Your task to perform on an android device: turn notification dots off Image 0: 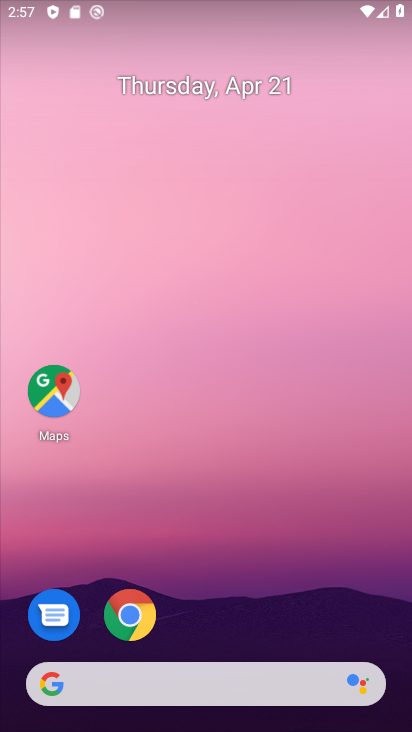
Step 0: drag from (365, 592) to (320, 163)
Your task to perform on an android device: turn notification dots off Image 1: 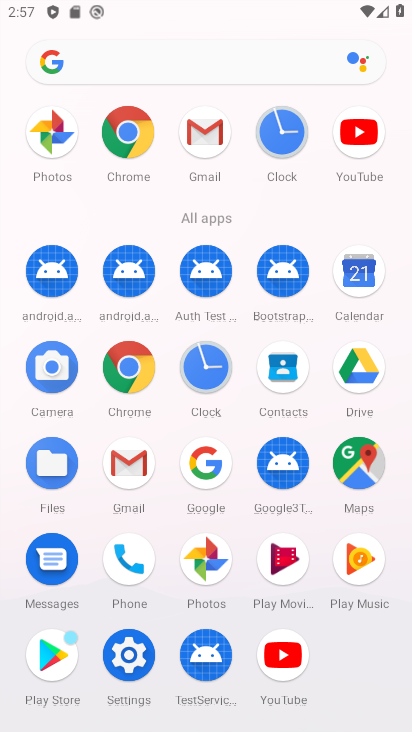
Step 1: click (121, 655)
Your task to perform on an android device: turn notification dots off Image 2: 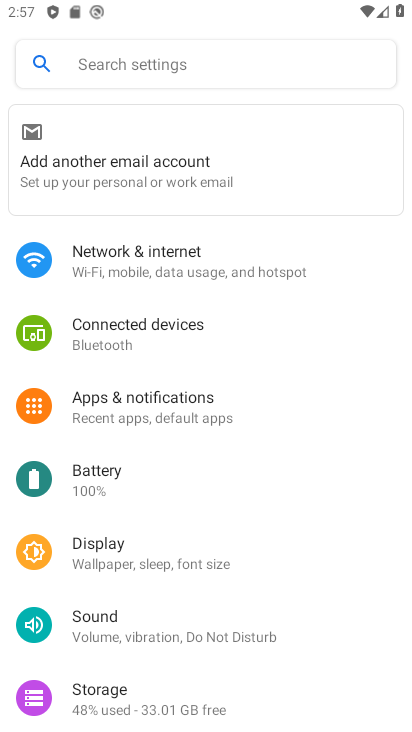
Step 2: click (175, 396)
Your task to perform on an android device: turn notification dots off Image 3: 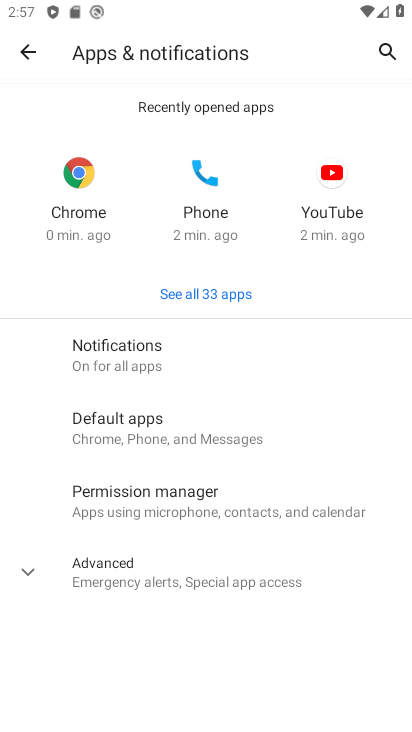
Step 3: click (106, 355)
Your task to perform on an android device: turn notification dots off Image 4: 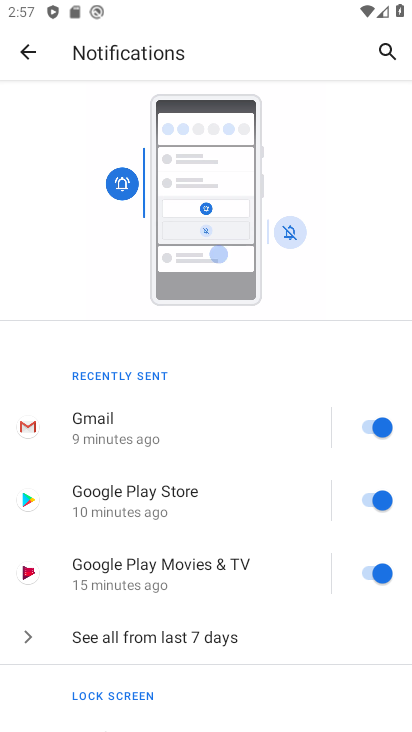
Step 4: drag from (227, 690) to (349, 330)
Your task to perform on an android device: turn notification dots off Image 5: 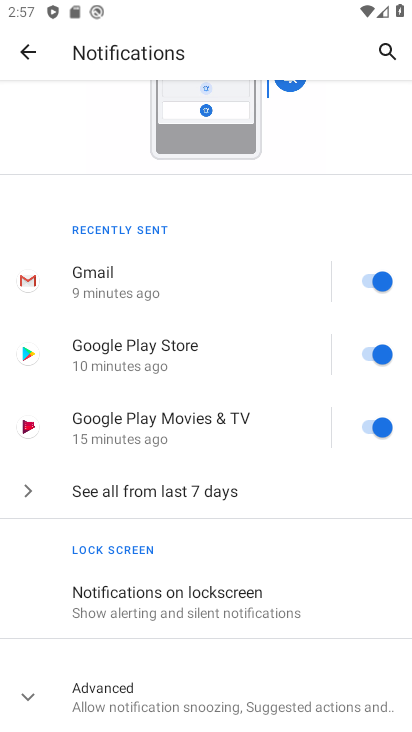
Step 5: click (207, 600)
Your task to perform on an android device: turn notification dots off Image 6: 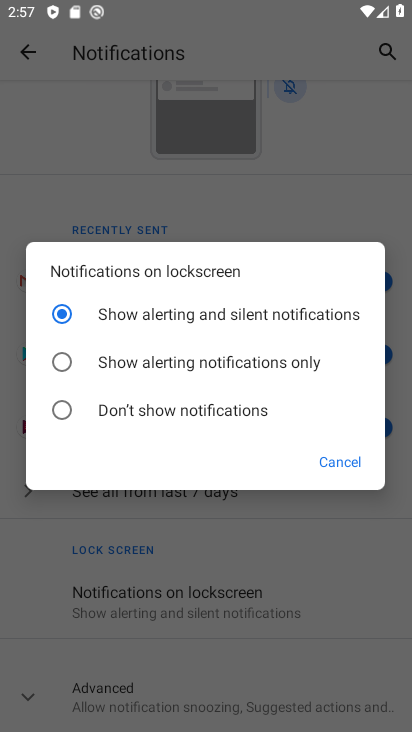
Step 6: click (328, 571)
Your task to perform on an android device: turn notification dots off Image 7: 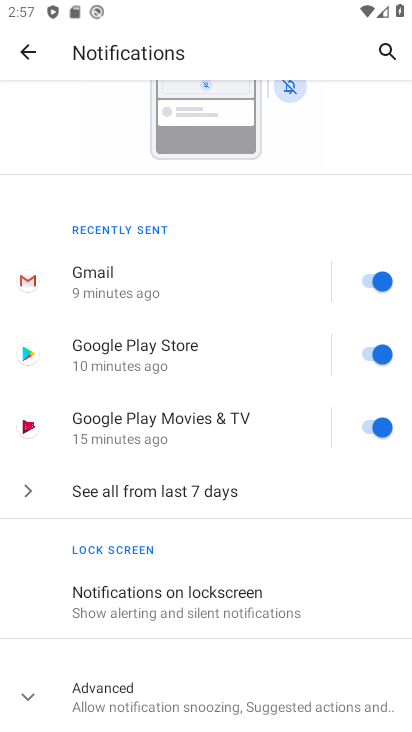
Step 7: drag from (248, 632) to (245, 467)
Your task to perform on an android device: turn notification dots off Image 8: 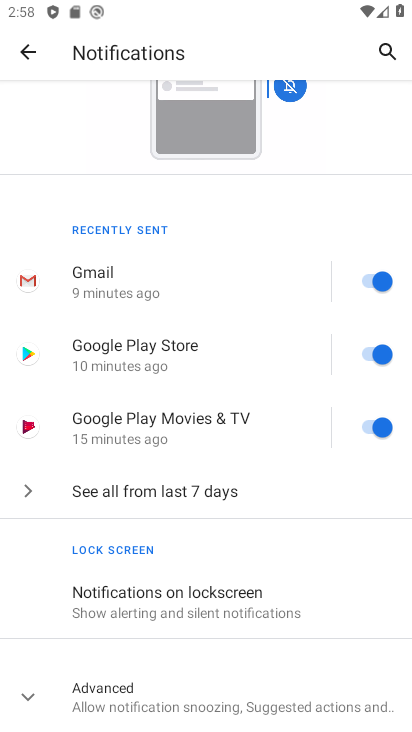
Step 8: click (191, 689)
Your task to perform on an android device: turn notification dots off Image 9: 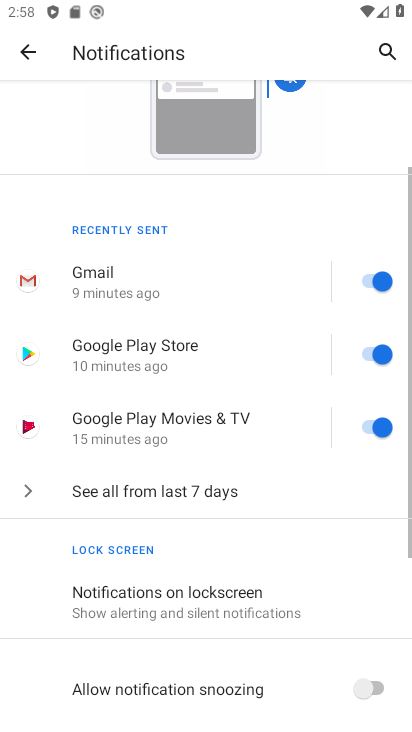
Step 9: drag from (277, 661) to (290, 380)
Your task to perform on an android device: turn notification dots off Image 10: 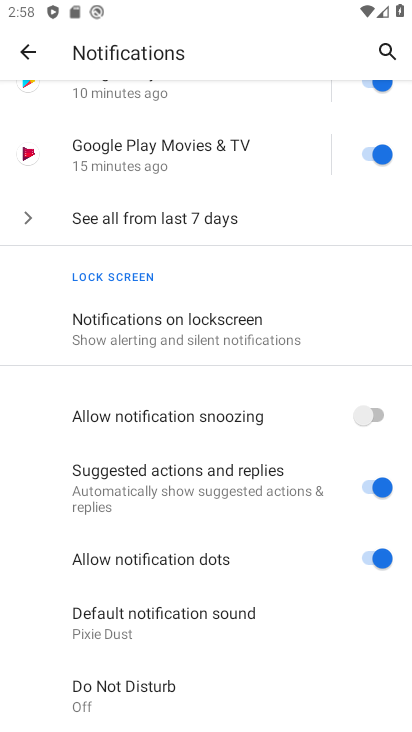
Step 10: click (365, 555)
Your task to perform on an android device: turn notification dots off Image 11: 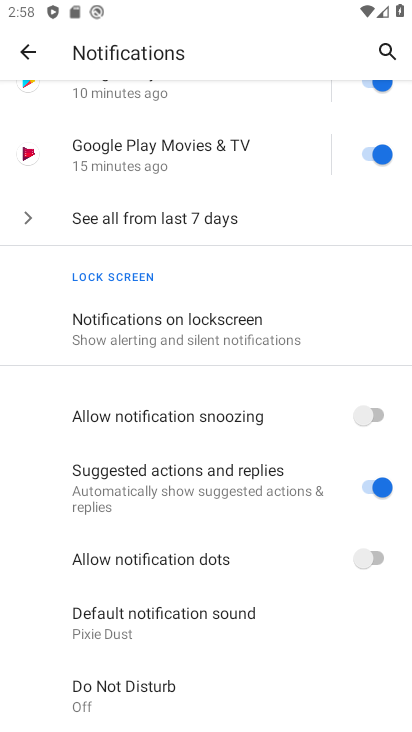
Step 11: task complete